Your task to perform on an android device: Open privacy settings Image 0: 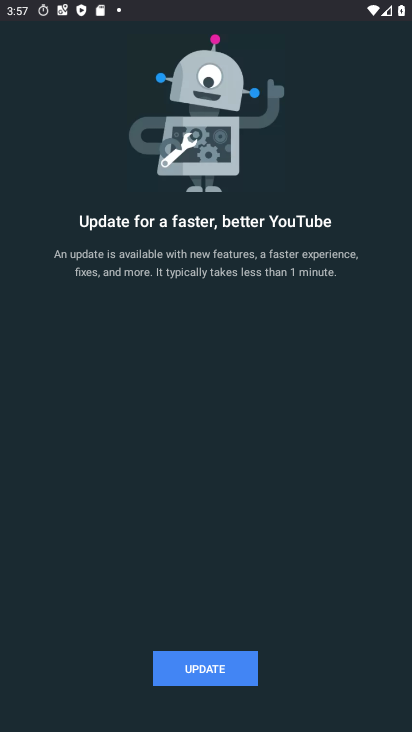
Step 0: press home button
Your task to perform on an android device: Open privacy settings Image 1: 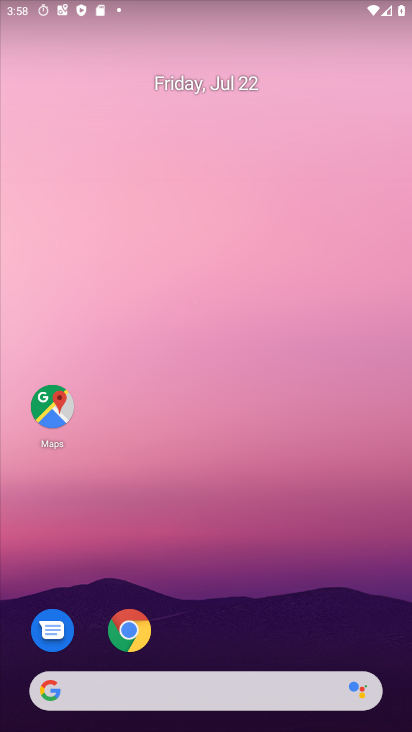
Step 1: drag from (210, 688) to (180, 0)
Your task to perform on an android device: Open privacy settings Image 2: 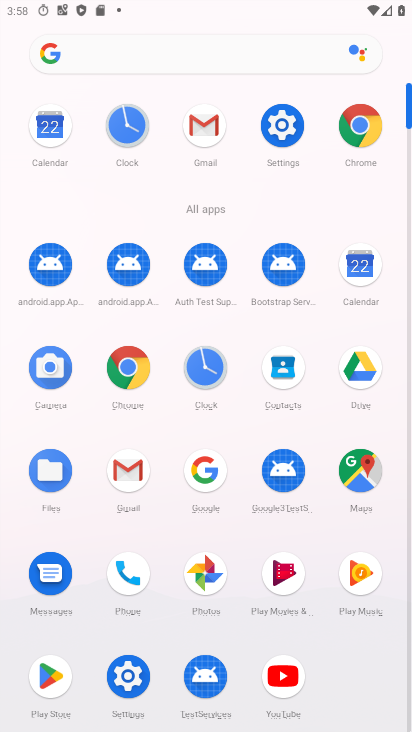
Step 2: click (278, 128)
Your task to perform on an android device: Open privacy settings Image 3: 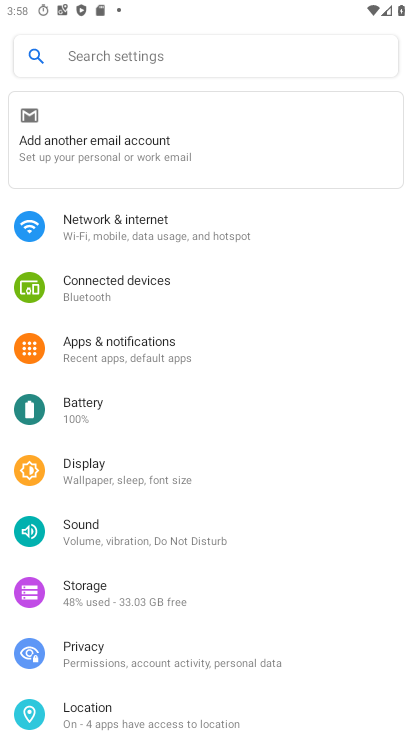
Step 3: click (78, 665)
Your task to perform on an android device: Open privacy settings Image 4: 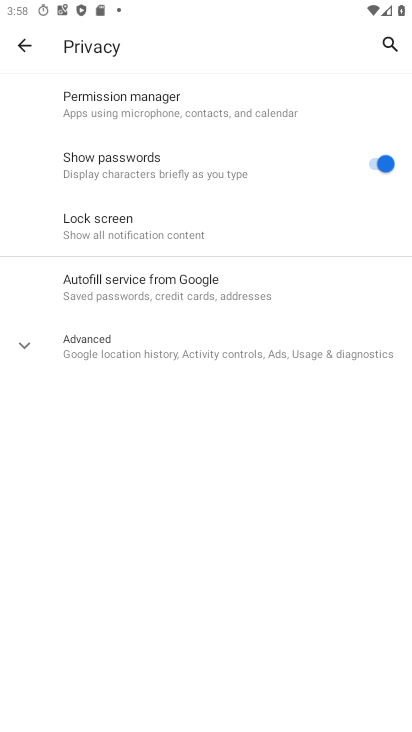
Step 4: task complete